Your task to perform on an android device: open app "Microsoft Outlook" Image 0: 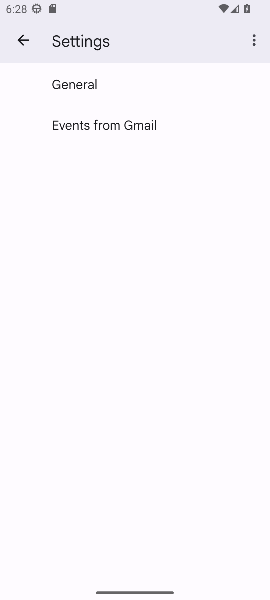
Step 0: press home button
Your task to perform on an android device: open app "Microsoft Outlook" Image 1: 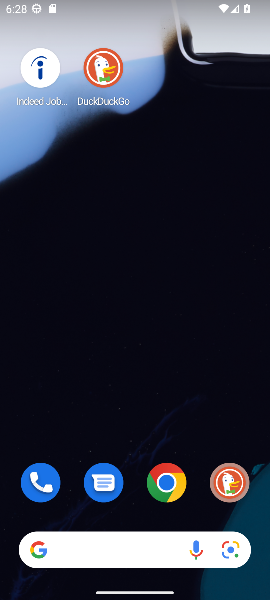
Step 1: drag from (170, 419) to (209, 0)
Your task to perform on an android device: open app "Microsoft Outlook" Image 2: 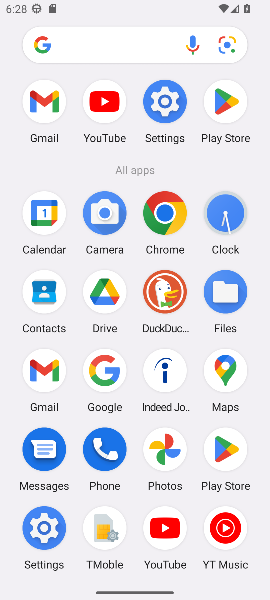
Step 2: click (219, 97)
Your task to perform on an android device: open app "Microsoft Outlook" Image 3: 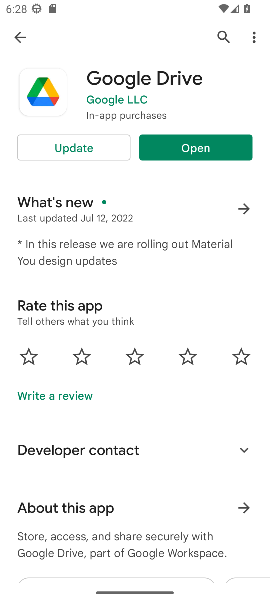
Step 3: click (220, 42)
Your task to perform on an android device: open app "Microsoft Outlook" Image 4: 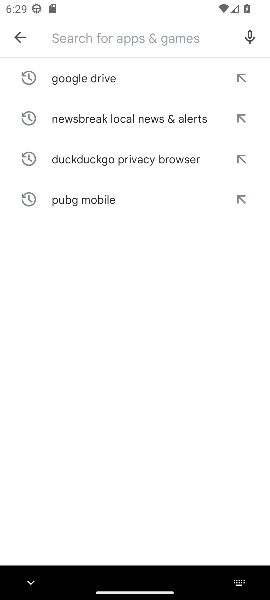
Step 4: type "microsoft outlook"
Your task to perform on an android device: open app "Microsoft Outlook" Image 5: 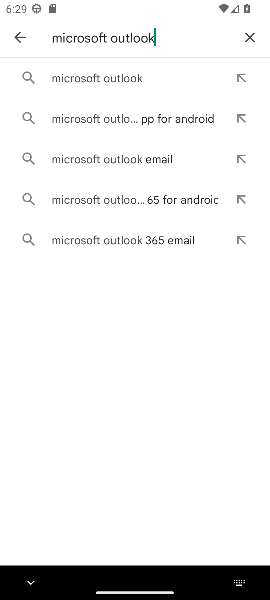
Step 5: click (106, 69)
Your task to perform on an android device: open app "Microsoft Outlook" Image 6: 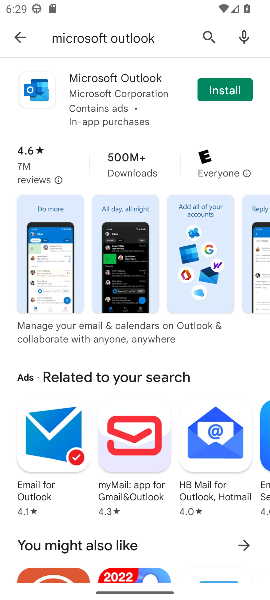
Step 6: click (106, 69)
Your task to perform on an android device: open app "Microsoft Outlook" Image 7: 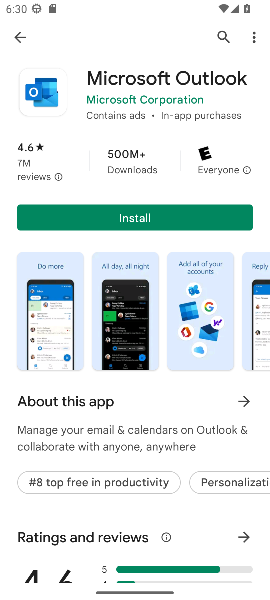
Step 7: task complete